Your task to perform on an android device: Go to CNN.com Image 0: 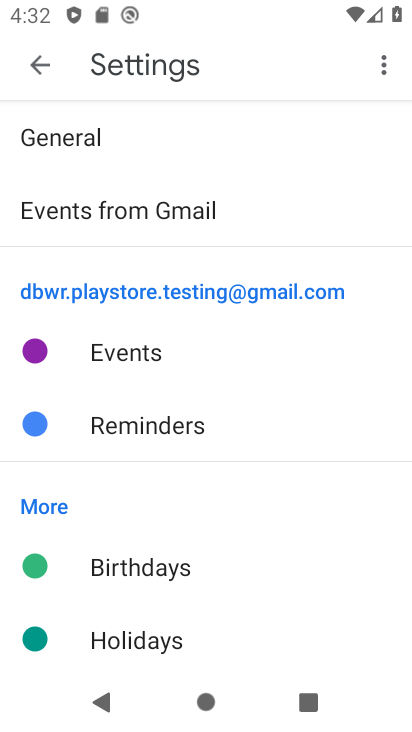
Step 0: press home button
Your task to perform on an android device: Go to CNN.com Image 1: 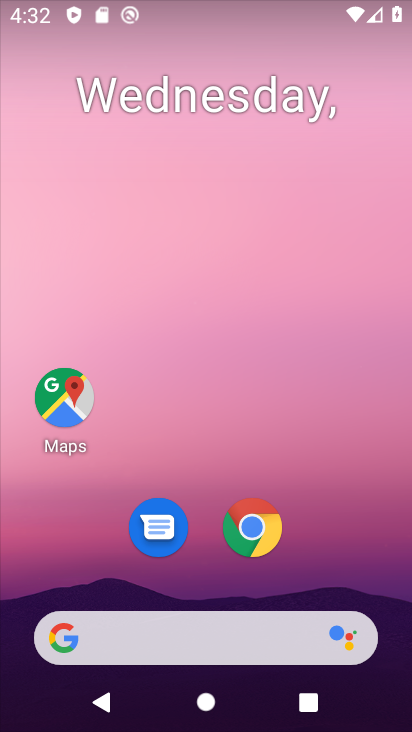
Step 1: click (264, 536)
Your task to perform on an android device: Go to CNN.com Image 2: 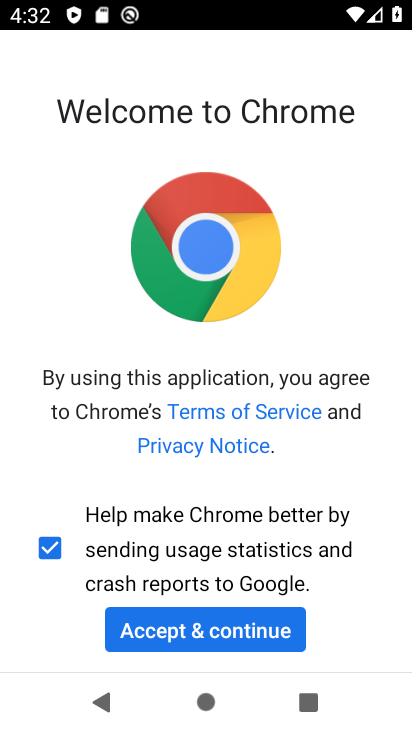
Step 2: click (191, 623)
Your task to perform on an android device: Go to CNN.com Image 3: 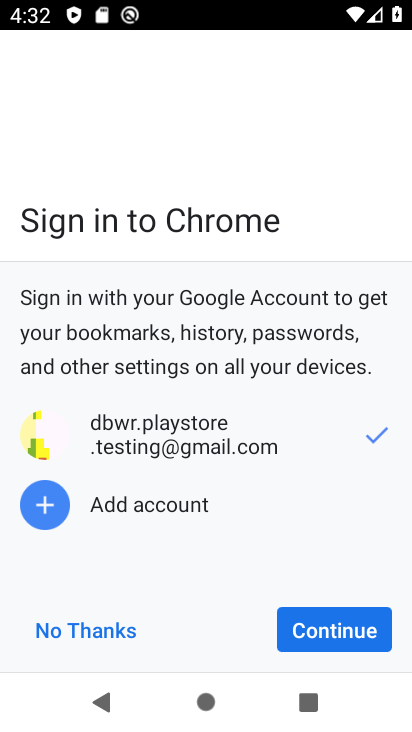
Step 3: click (332, 630)
Your task to perform on an android device: Go to CNN.com Image 4: 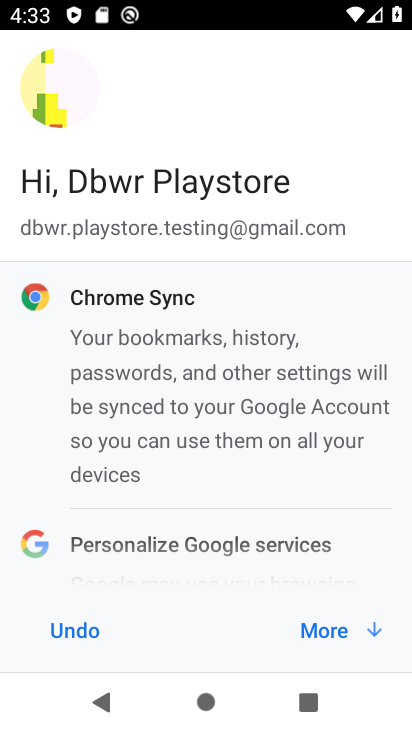
Step 4: click (332, 630)
Your task to perform on an android device: Go to CNN.com Image 5: 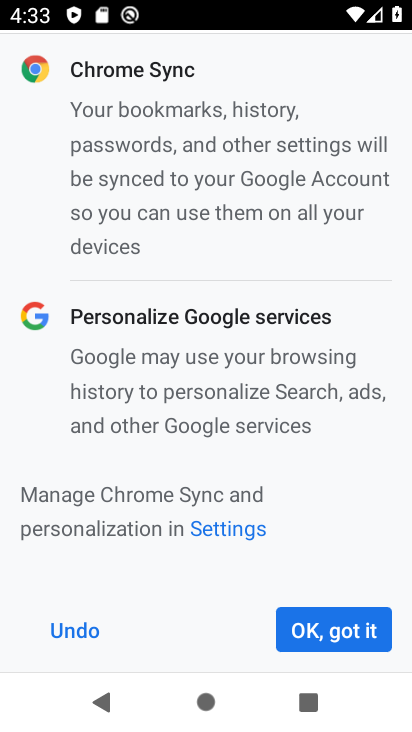
Step 5: click (332, 630)
Your task to perform on an android device: Go to CNN.com Image 6: 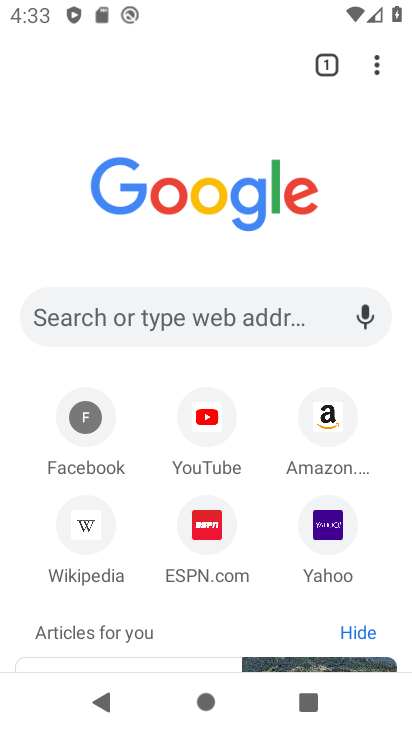
Step 6: click (180, 305)
Your task to perform on an android device: Go to CNN.com Image 7: 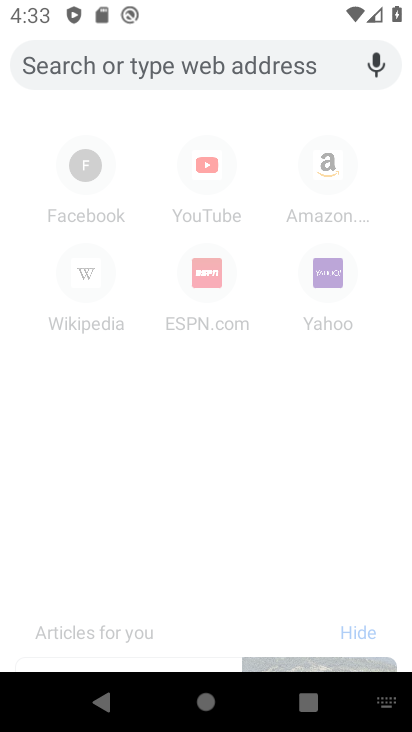
Step 7: type "CNN.com"
Your task to perform on an android device: Go to CNN.com Image 8: 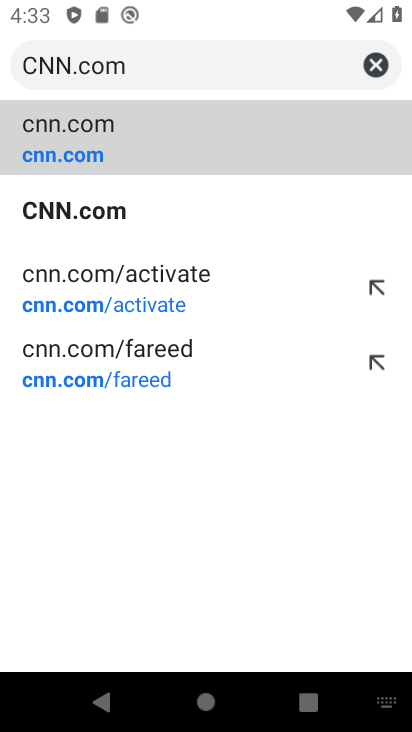
Step 8: click (68, 154)
Your task to perform on an android device: Go to CNN.com Image 9: 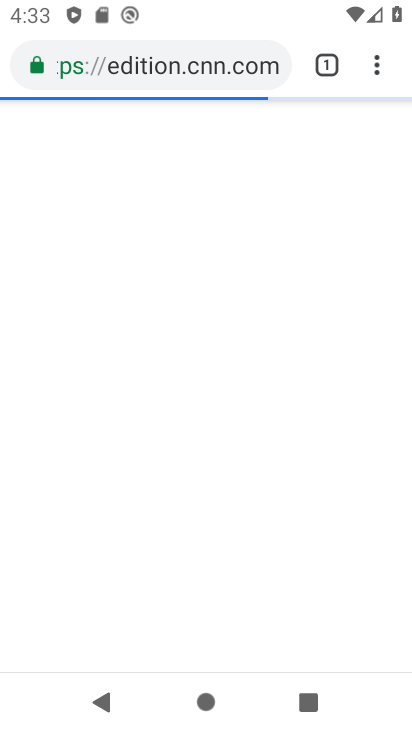
Step 9: task complete